Your task to perform on an android device: Go to calendar. Show me events next week Image 0: 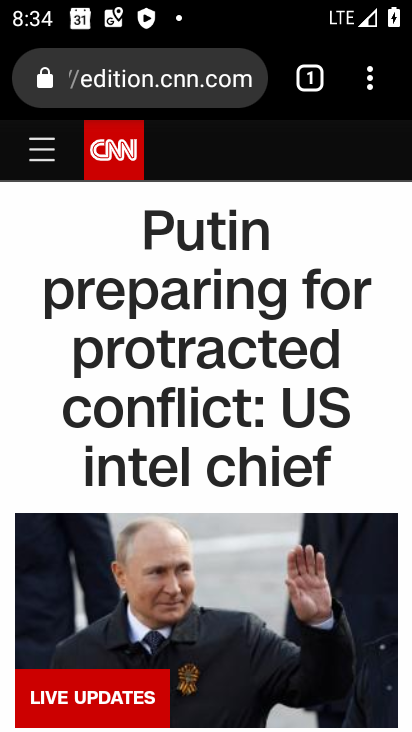
Step 0: press back button
Your task to perform on an android device: Go to calendar. Show me events next week Image 1: 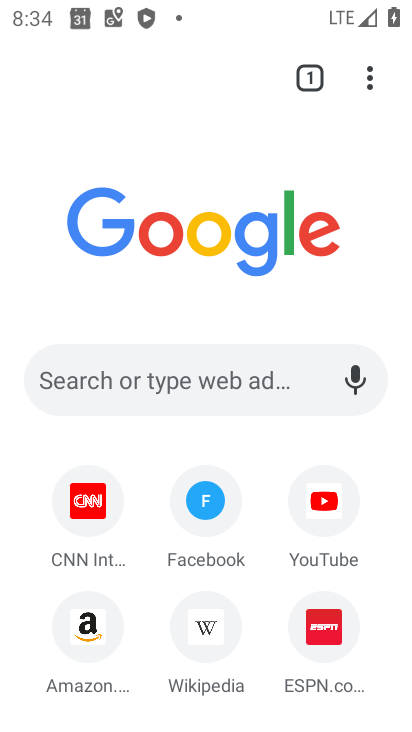
Step 1: press back button
Your task to perform on an android device: Go to calendar. Show me events next week Image 2: 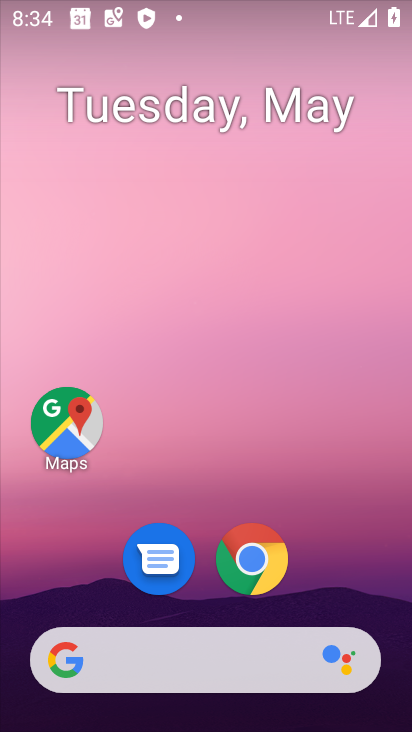
Step 2: drag from (188, 603) to (299, 59)
Your task to perform on an android device: Go to calendar. Show me events next week Image 3: 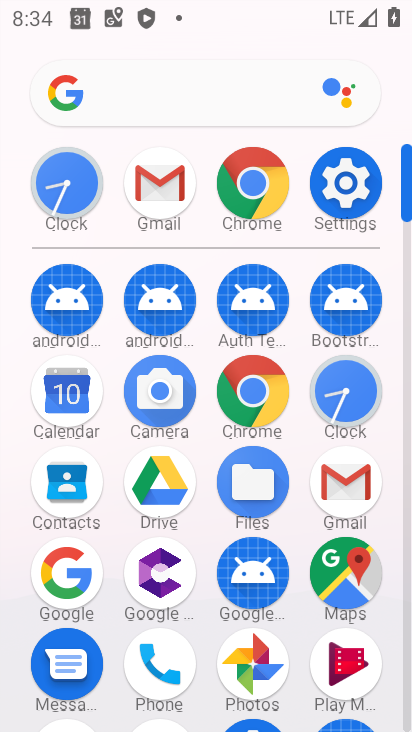
Step 3: click (69, 412)
Your task to perform on an android device: Go to calendar. Show me events next week Image 4: 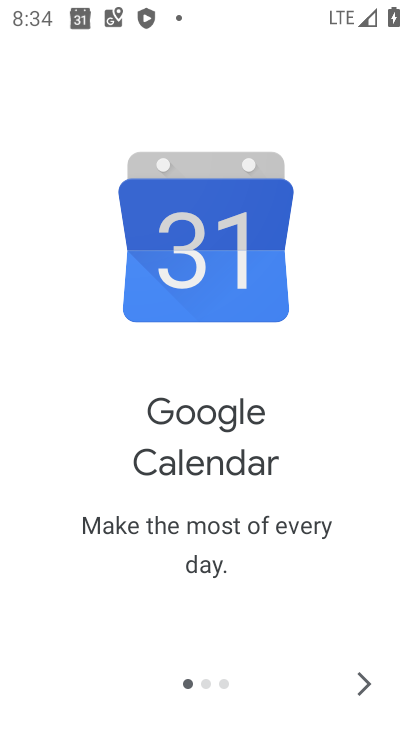
Step 4: click (375, 682)
Your task to perform on an android device: Go to calendar. Show me events next week Image 5: 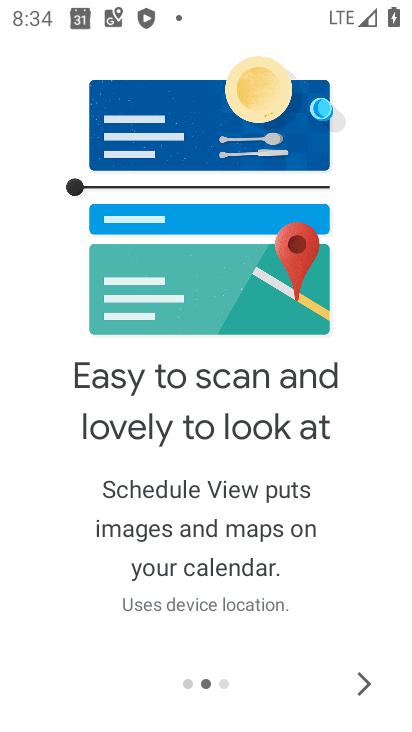
Step 5: click (376, 680)
Your task to perform on an android device: Go to calendar. Show me events next week Image 6: 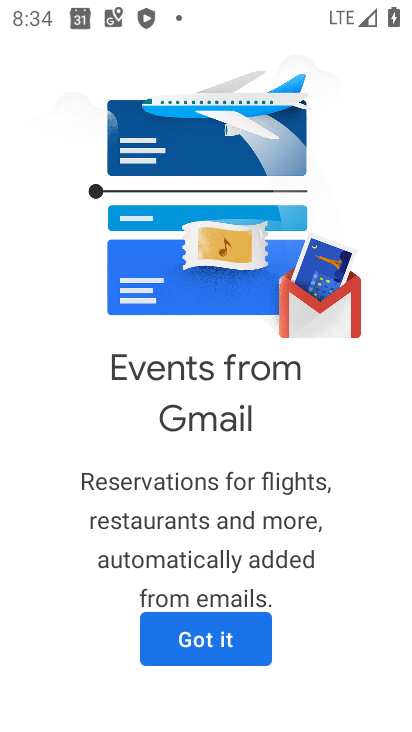
Step 6: click (181, 614)
Your task to perform on an android device: Go to calendar. Show me events next week Image 7: 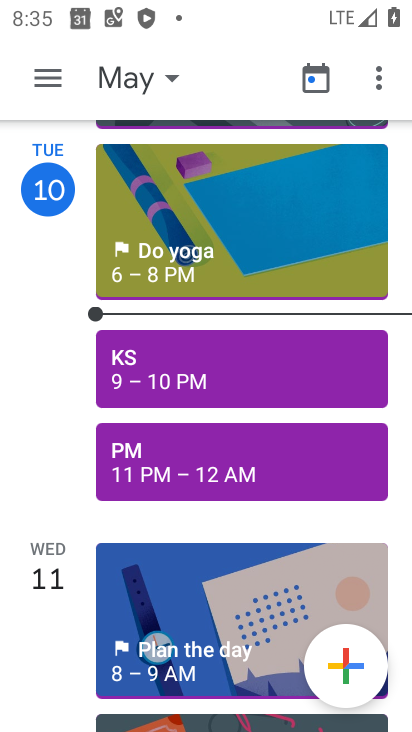
Step 7: click (163, 77)
Your task to perform on an android device: Go to calendar. Show me events next week Image 8: 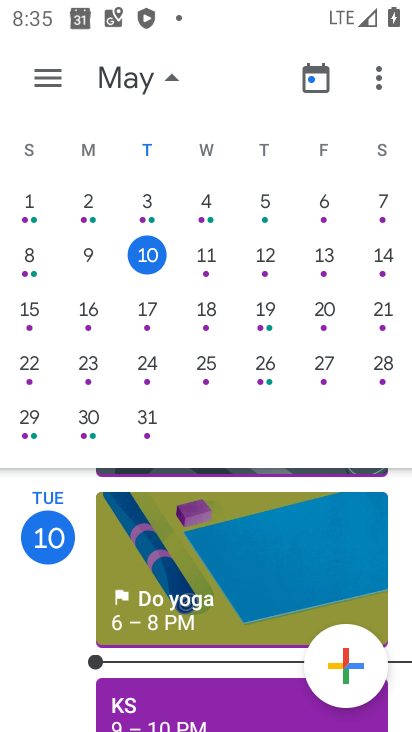
Step 8: click (87, 308)
Your task to perform on an android device: Go to calendar. Show me events next week Image 9: 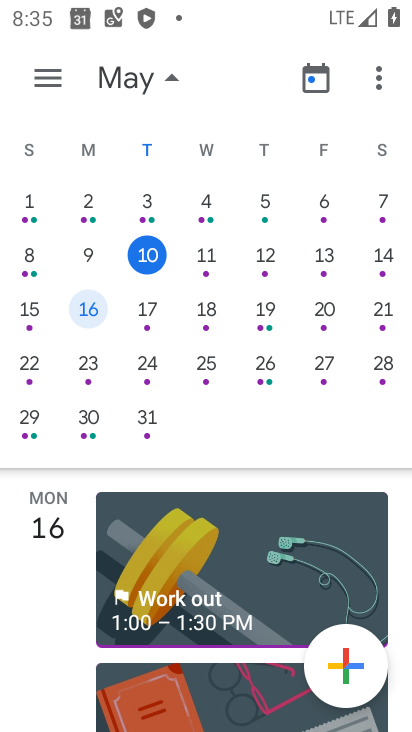
Step 9: drag from (186, 564) to (257, 119)
Your task to perform on an android device: Go to calendar. Show me events next week Image 10: 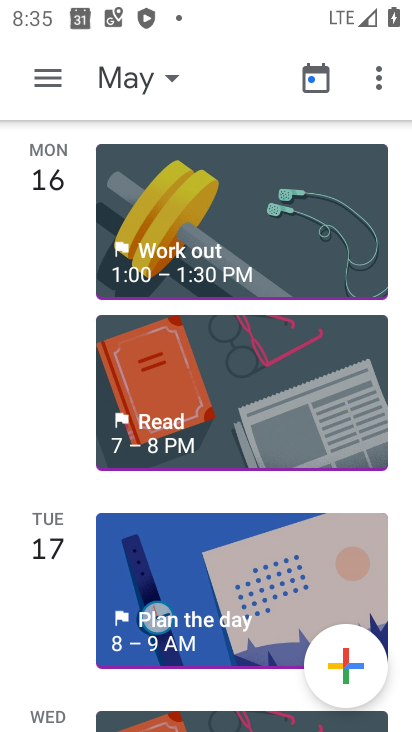
Step 10: drag from (238, 614) to (296, 112)
Your task to perform on an android device: Go to calendar. Show me events next week Image 11: 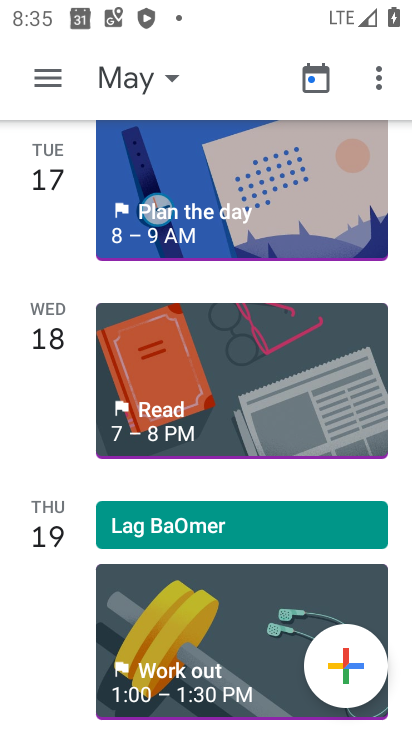
Step 11: click (200, 626)
Your task to perform on an android device: Go to calendar. Show me events next week Image 12: 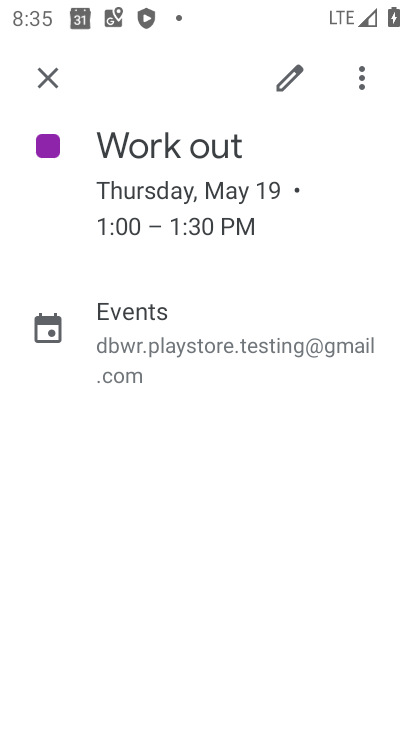
Step 12: task complete